Your task to perform on an android device: Open the stopwatch Image 0: 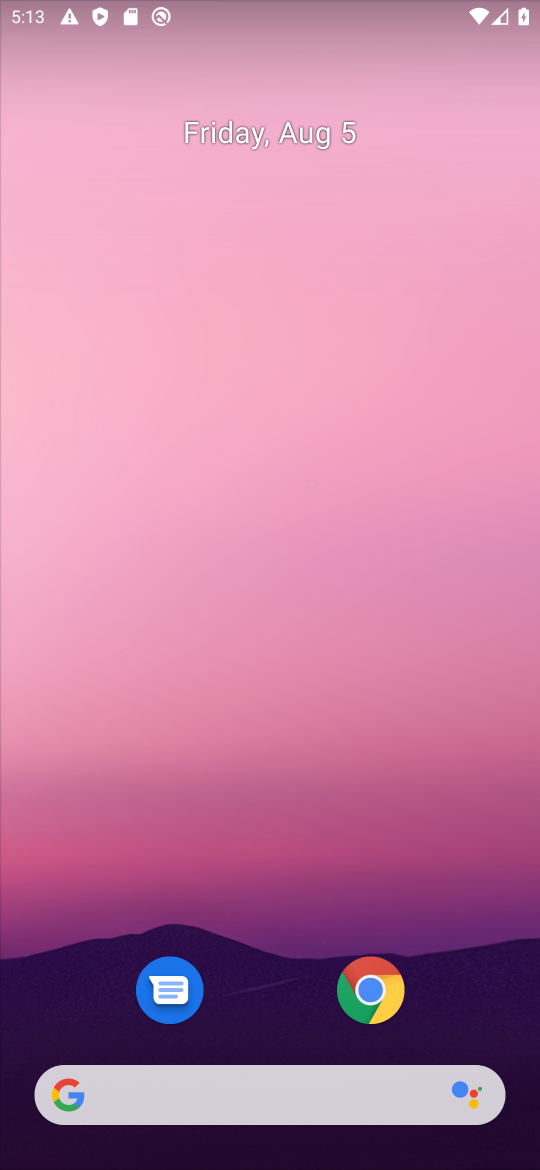
Step 0: drag from (231, 652) to (213, 363)
Your task to perform on an android device: Open the stopwatch Image 1: 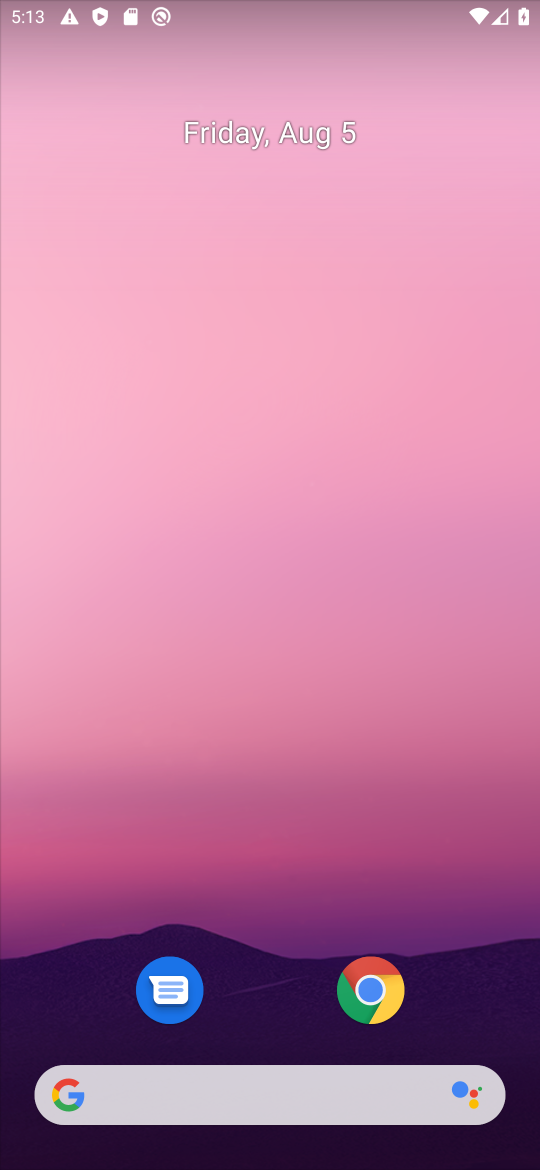
Step 1: drag from (299, 1097) to (374, 442)
Your task to perform on an android device: Open the stopwatch Image 2: 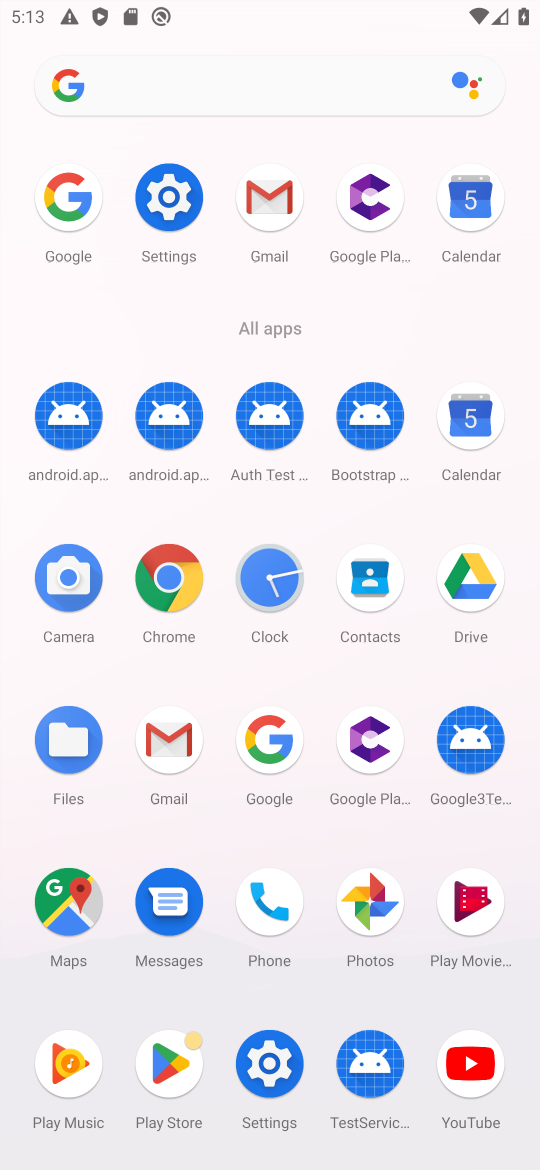
Step 2: click (258, 583)
Your task to perform on an android device: Open the stopwatch Image 3: 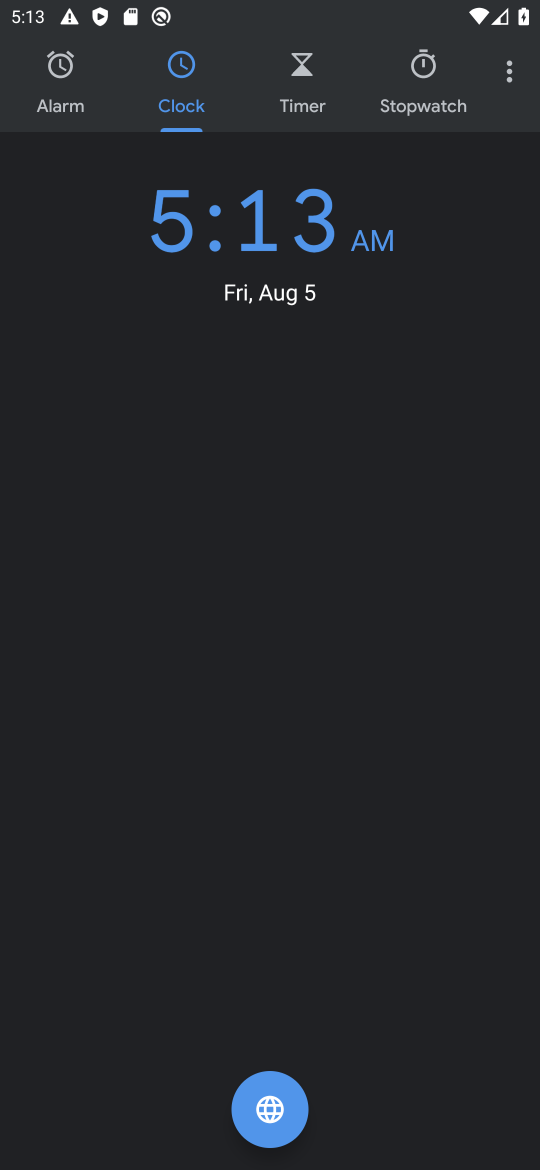
Step 3: click (397, 82)
Your task to perform on an android device: Open the stopwatch Image 4: 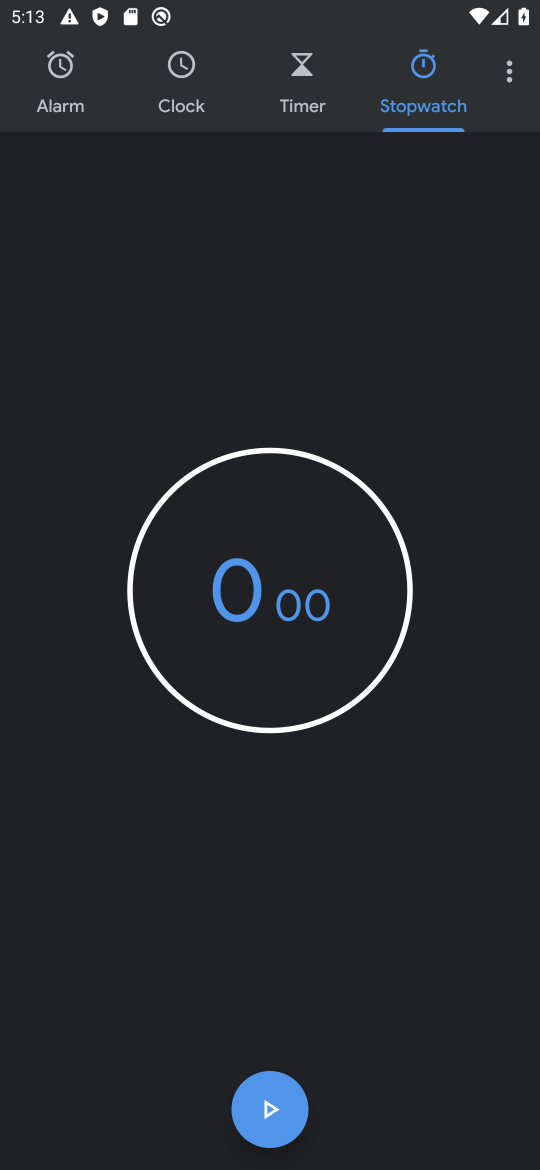
Step 4: task complete